Your task to perform on an android device: Show me productivity apps on the Play Store Image 0: 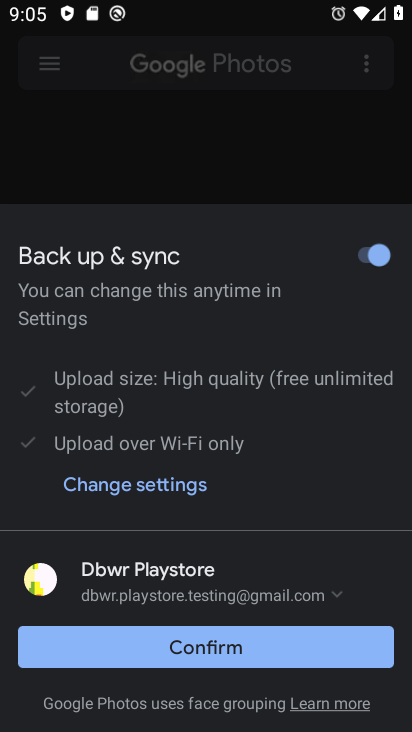
Step 0: press home button
Your task to perform on an android device: Show me productivity apps on the Play Store Image 1: 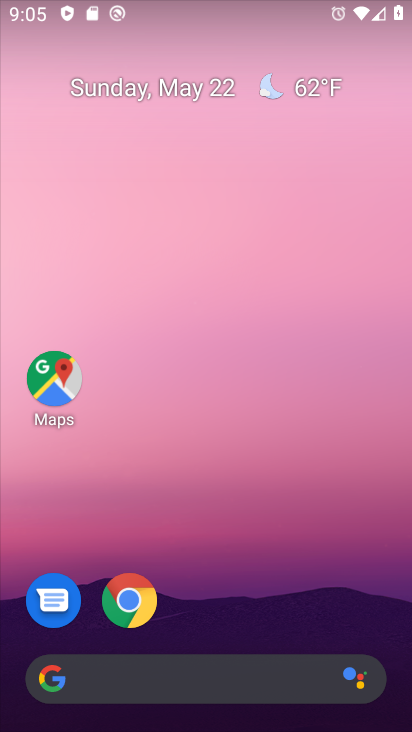
Step 1: drag from (275, 588) to (161, 135)
Your task to perform on an android device: Show me productivity apps on the Play Store Image 2: 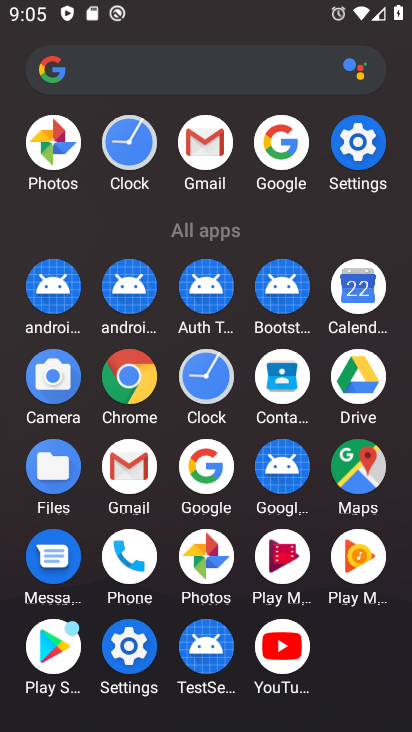
Step 2: click (57, 645)
Your task to perform on an android device: Show me productivity apps on the Play Store Image 3: 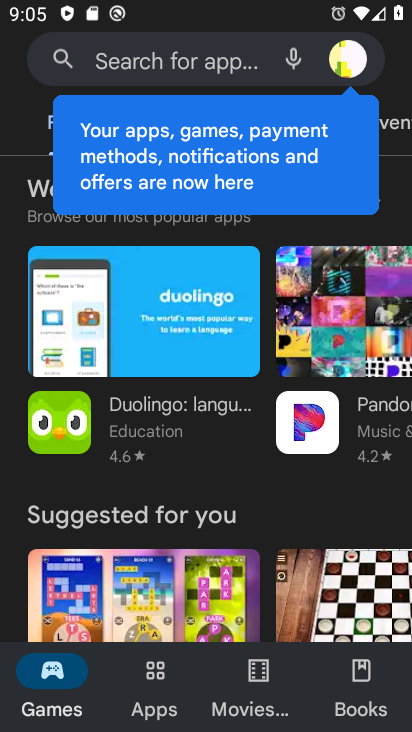
Step 3: click (154, 671)
Your task to perform on an android device: Show me productivity apps on the Play Store Image 4: 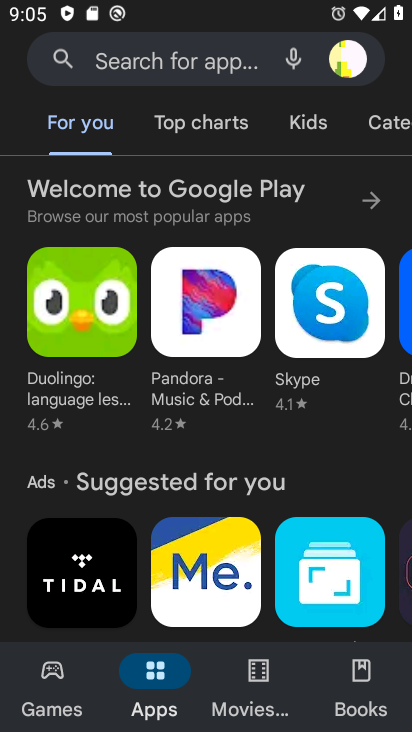
Step 4: click (386, 123)
Your task to perform on an android device: Show me productivity apps on the Play Store Image 5: 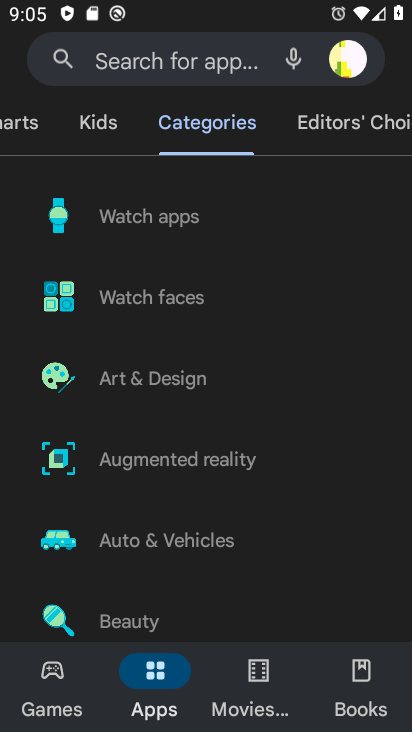
Step 5: drag from (173, 426) to (208, 347)
Your task to perform on an android device: Show me productivity apps on the Play Store Image 6: 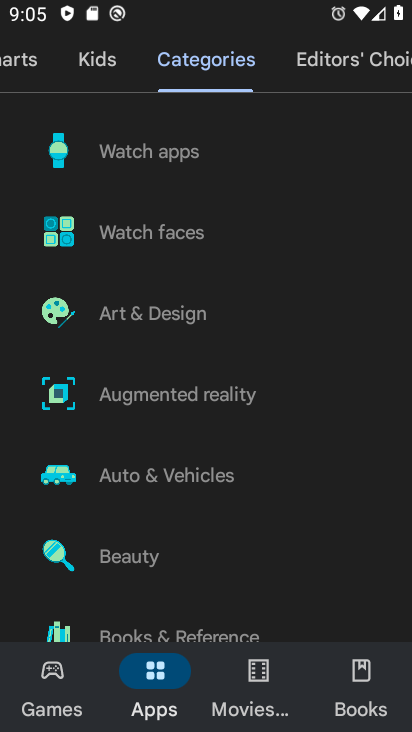
Step 6: drag from (146, 505) to (226, 394)
Your task to perform on an android device: Show me productivity apps on the Play Store Image 7: 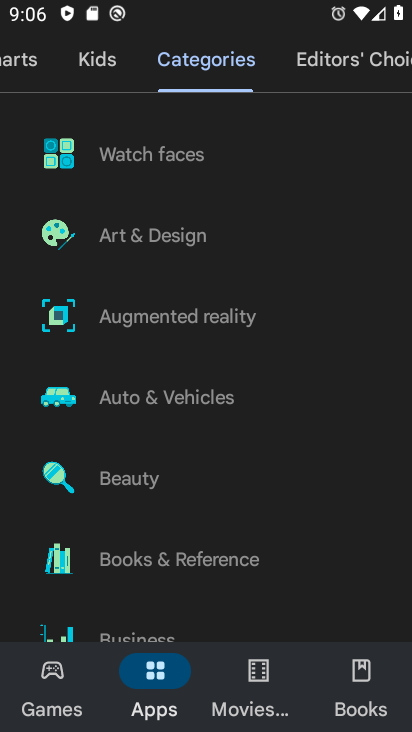
Step 7: drag from (163, 535) to (206, 434)
Your task to perform on an android device: Show me productivity apps on the Play Store Image 8: 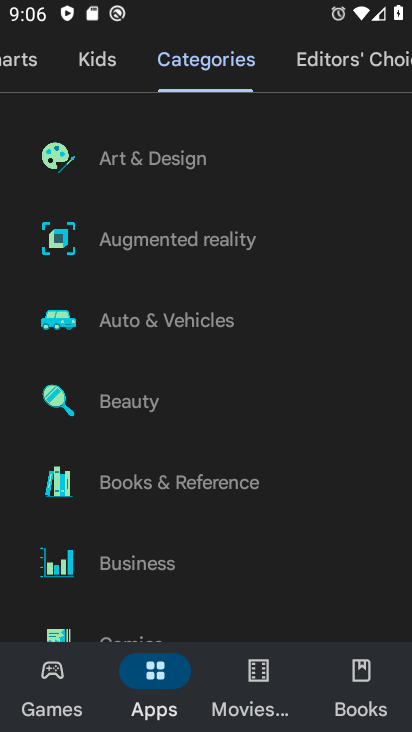
Step 8: drag from (132, 524) to (205, 402)
Your task to perform on an android device: Show me productivity apps on the Play Store Image 9: 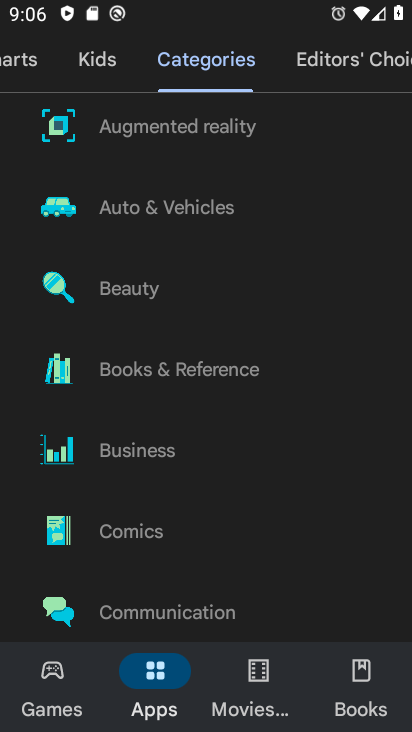
Step 9: drag from (145, 488) to (222, 363)
Your task to perform on an android device: Show me productivity apps on the Play Store Image 10: 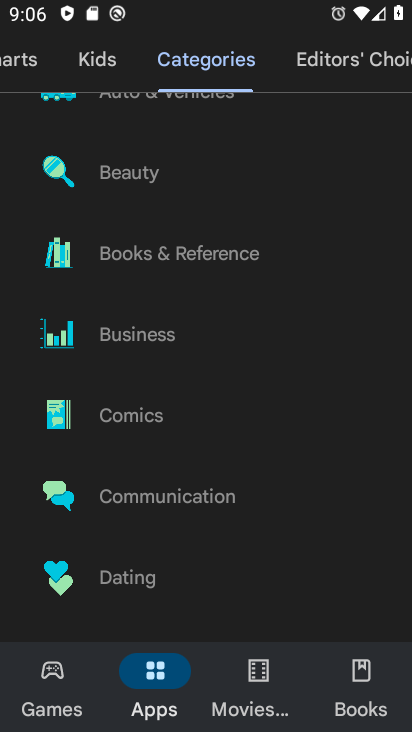
Step 10: drag from (148, 449) to (191, 347)
Your task to perform on an android device: Show me productivity apps on the Play Store Image 11: 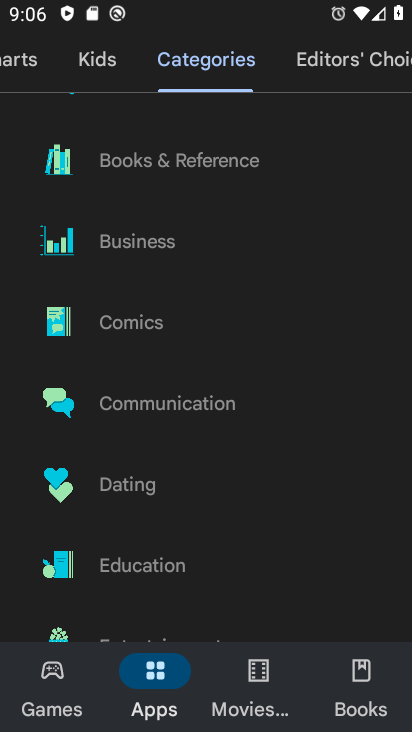
Step 11: drag from (106, 434) to (168, 343)
Your task to perform on an android device: Show me productivity apps on the Play Store Image 12: 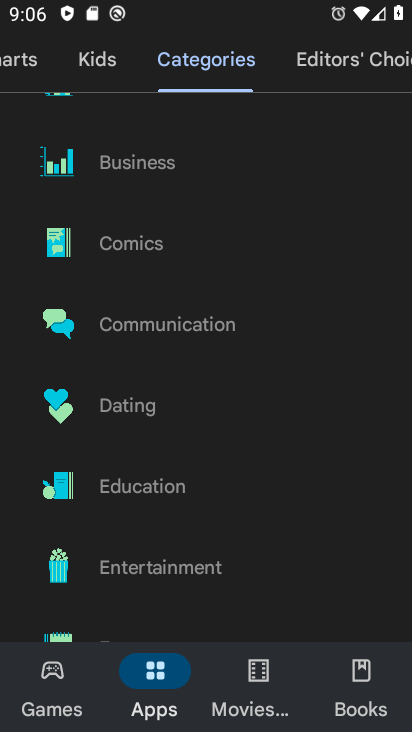
Step 12: drag from (140, 442) to (204, 342)
Your task to perform on an android device: Show me productivity apps on the Play Store Image 13: 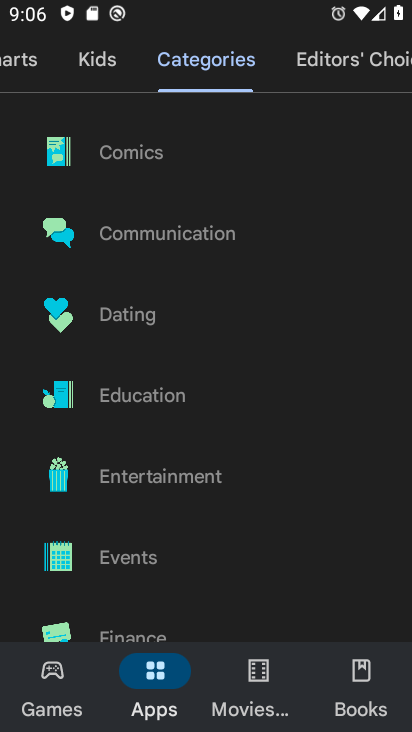
Step 13: drag from (138, 442) to (191, 345)
Your task to perform on an android device: Show me productivity apps on the Play Store Image 14: 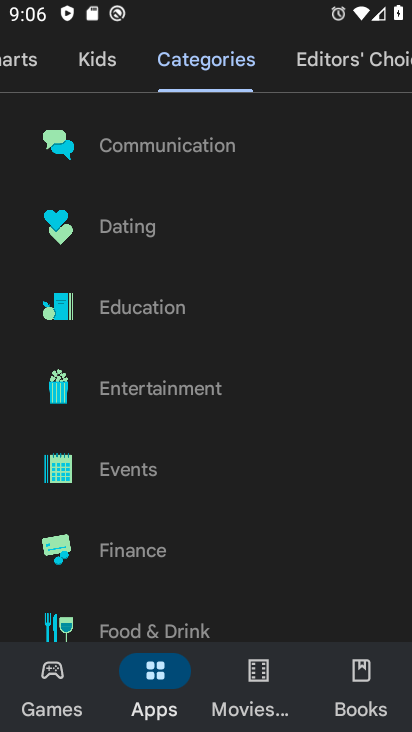
Step 14: drag from (127, 433) to (191, 327)
Your task to perform on an android device: Show me productivity apps on the Play Store Image 15: 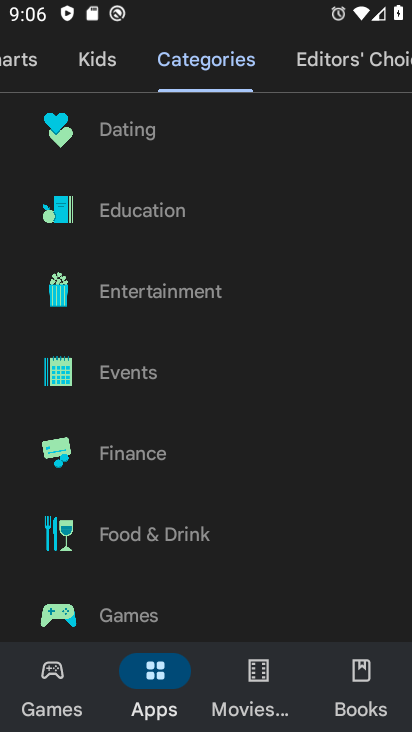
Step 15: drag from (119, 415) to (178, 330)
Your task to perform on an android device: Show me productivity apps on the Play Store Image 16: 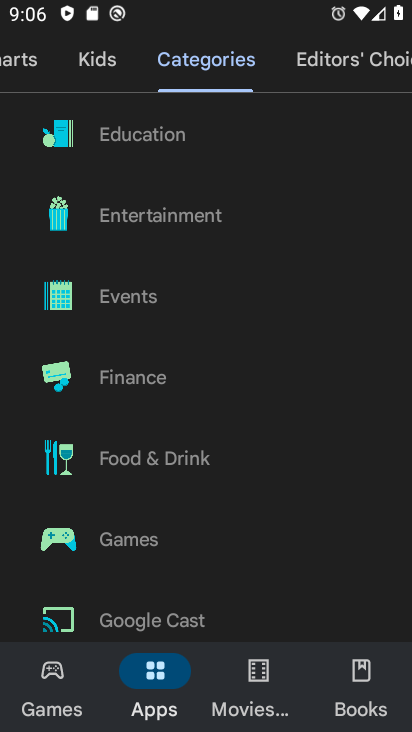
Step 16: drag from (116, 418) to (180, 324)
Your task to perform on an android device: Show me productivity apps on the Play Store Image 17: 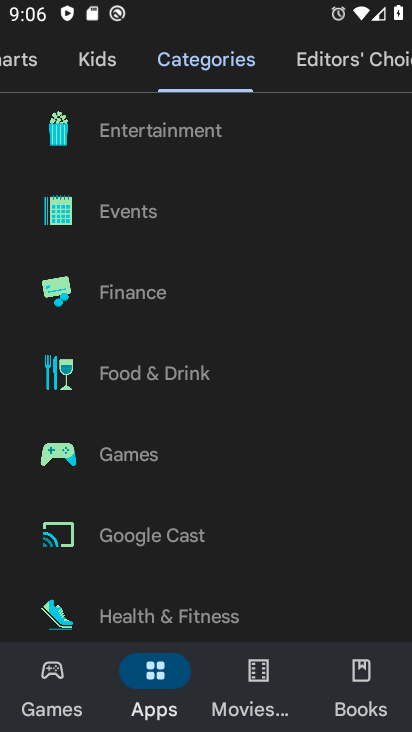
Step 17: drag from (110, 407) to (187, 304)
Your task to perform on an android device: Show me productivity apps on the Play Store Image 18: 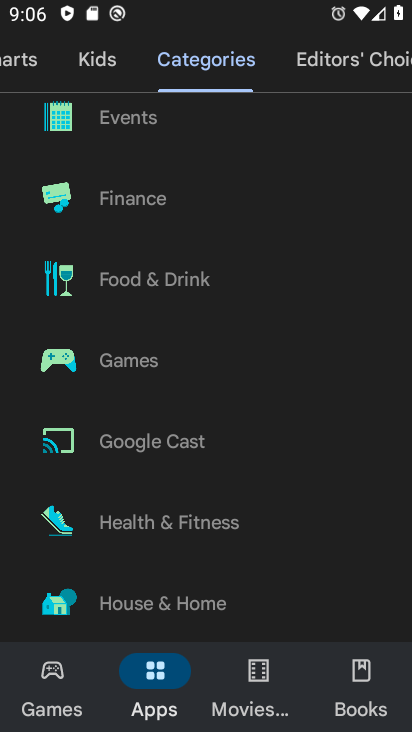
Step 18: drag from (115, 407) to (205, 300)
Your task to perform on an android device: Show me productivity apps on the Play Store Image 19: 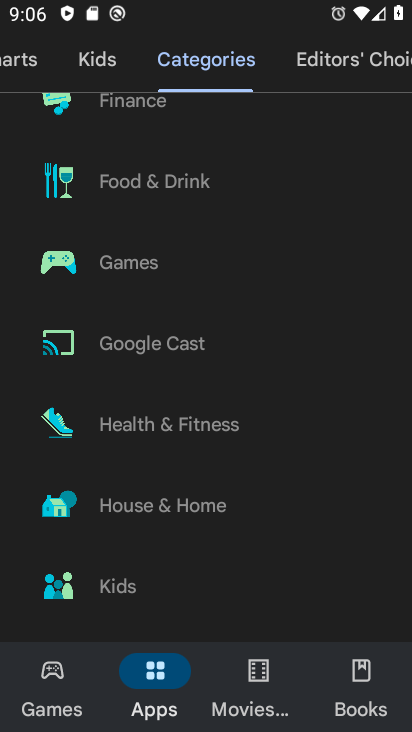
Step 19: drag from (111, 462) to (187, 364)
Your task to perform on an android device: Show me productivity apps on the Play Store Image 20: 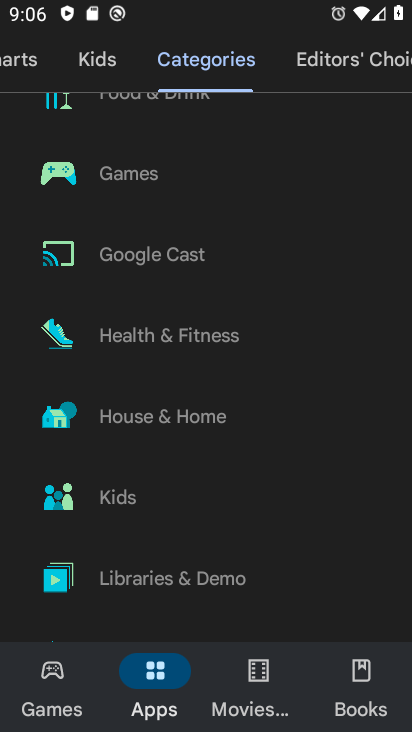
Step 20: drag from (133, 464) to (206, 349)
Your task to perform on an android device: Show me productivity apps on the Play Store Image 21: 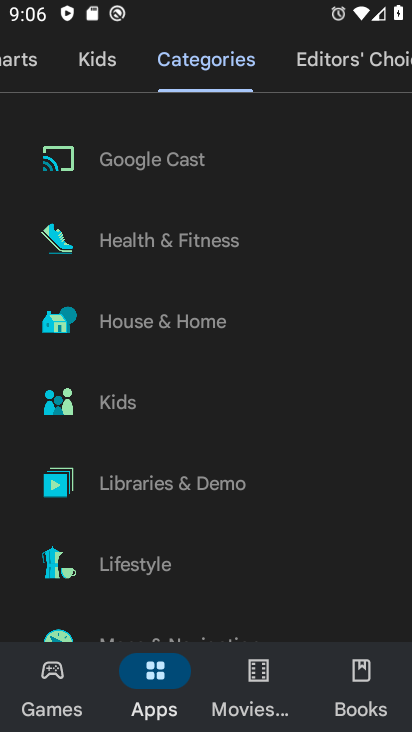
Step 21: drag from (120, 451) to (215, 348)
Your task to perform on an android device: Show me productivity apps on the Play Store Image 22: 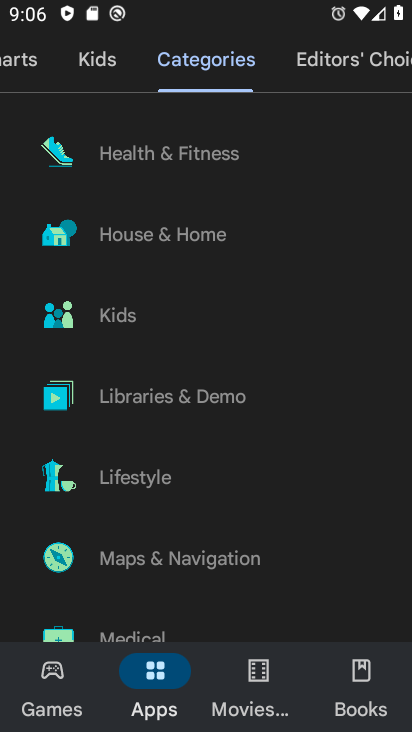
Step 22: drag from (131, 449) to (206, 364)
Your task to perform on an android device: Show me productivity apps on the Play Store Image 23: 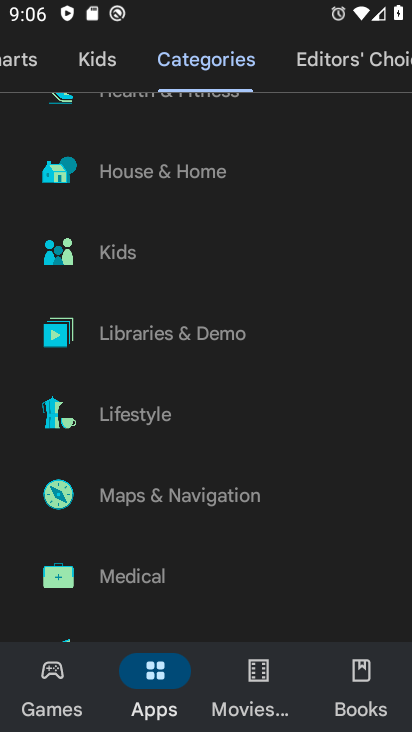
Step 23: drag from (128, 460) to (215, 361)
Your task to perform on an android device: Show me productivity apps on the Play Store Image 24: 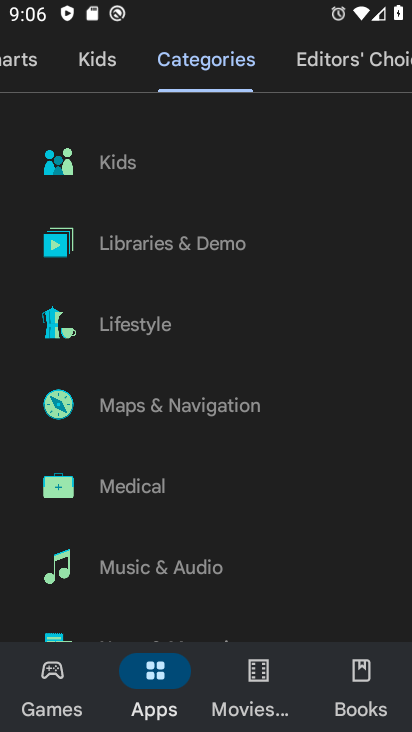
Step 24: drag from (122, 467) to (211, 360)
Your task to perform on an android device: Show me productivity apps on the Play Store Image 25: 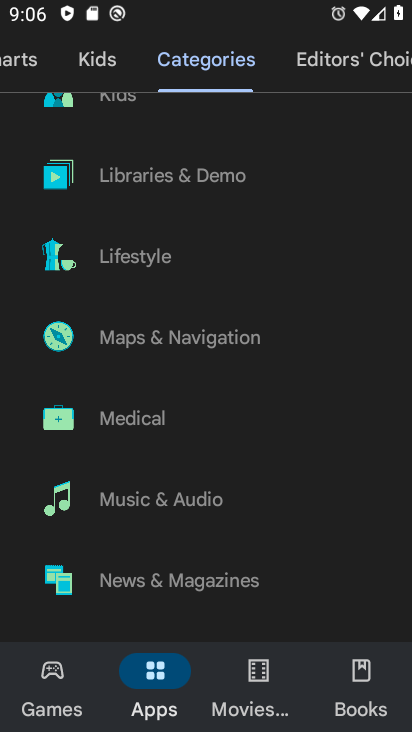
Step 25: drag from (124, 530) to (214, 427)
Your task to perform on an android device: Show me productivity apps on the Play Store Image 26: 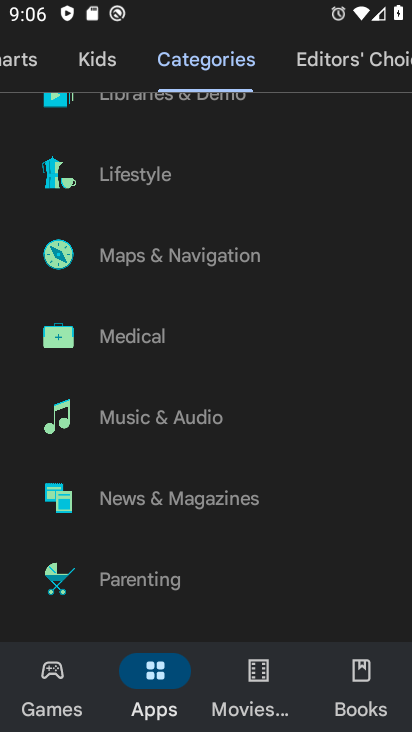
Step 26: drag from (132, 555) to (243, 418)
Your task to perform on an android device: Show me productivity apps on the Play Store Image 27: 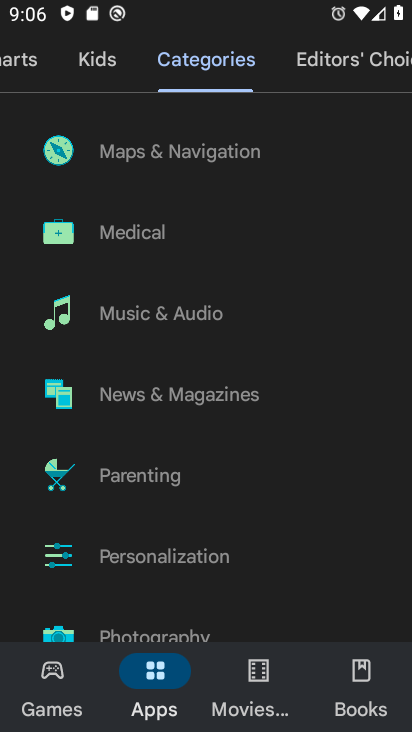
Step 27: drag from (142, 525) to (246, 420)
Your task to perform on an android device: Show me productivity apps on the Play Store Image 28: 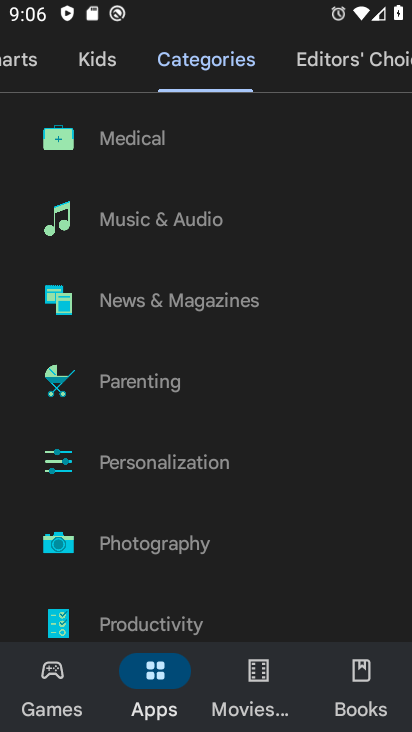
Step 28: drag from (135, 569) to (205, 446)
Your task to perform on an android device: Show me productivity apps on the Play Store Image 29: 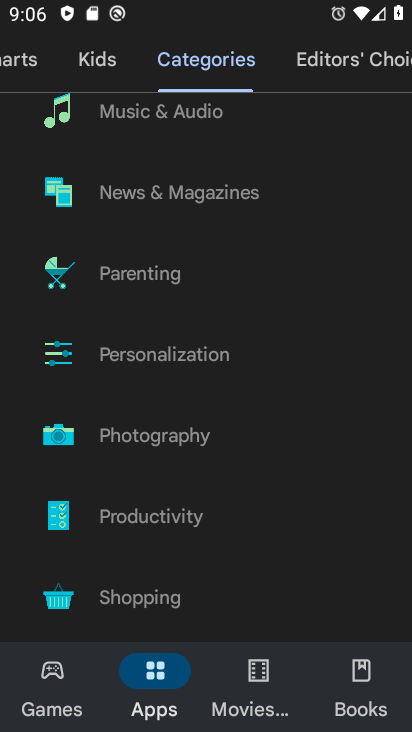
Step 29: click (146, 524)
Your task to perform on an android device: Show me productivity apps on the Play Store Image 30: 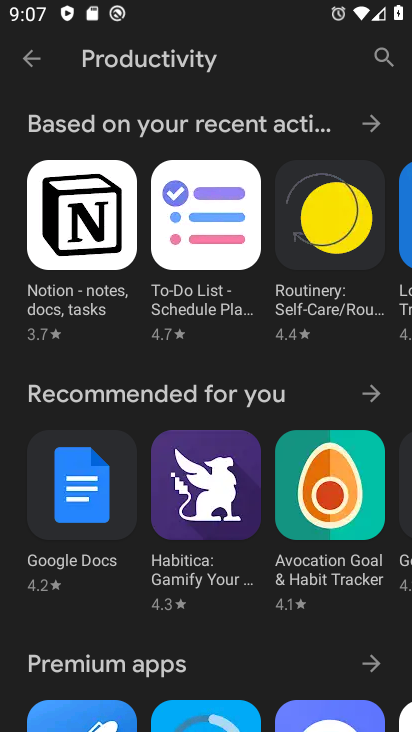
Step 30: task complete